Your task to perform on an android device: open a new tab in the chrome app Image 0: 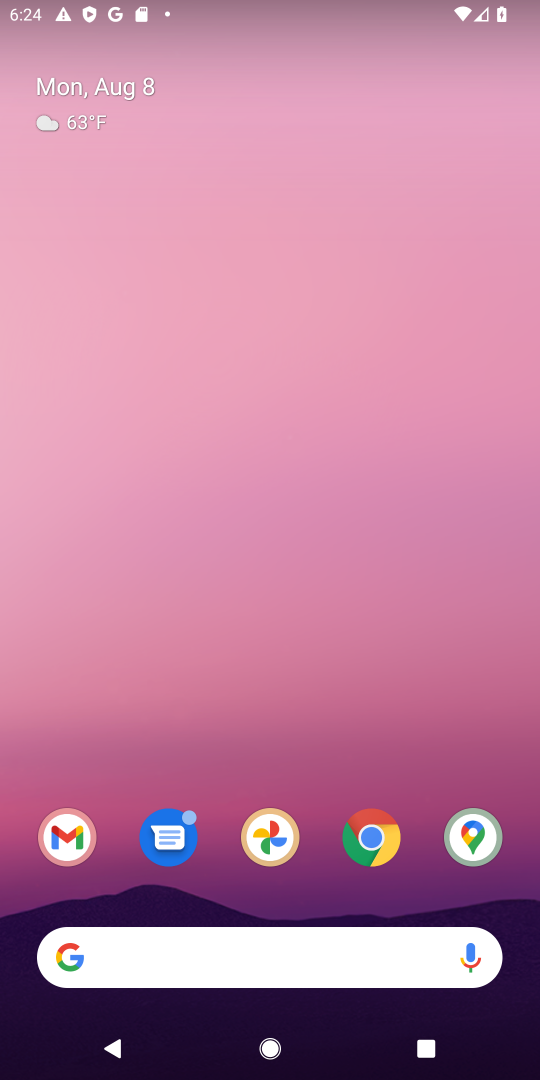
Step 0: drag from (213, 856) to (87, 4)
Your task to perform on an android device: open a new tab in the chrome app Image 1: 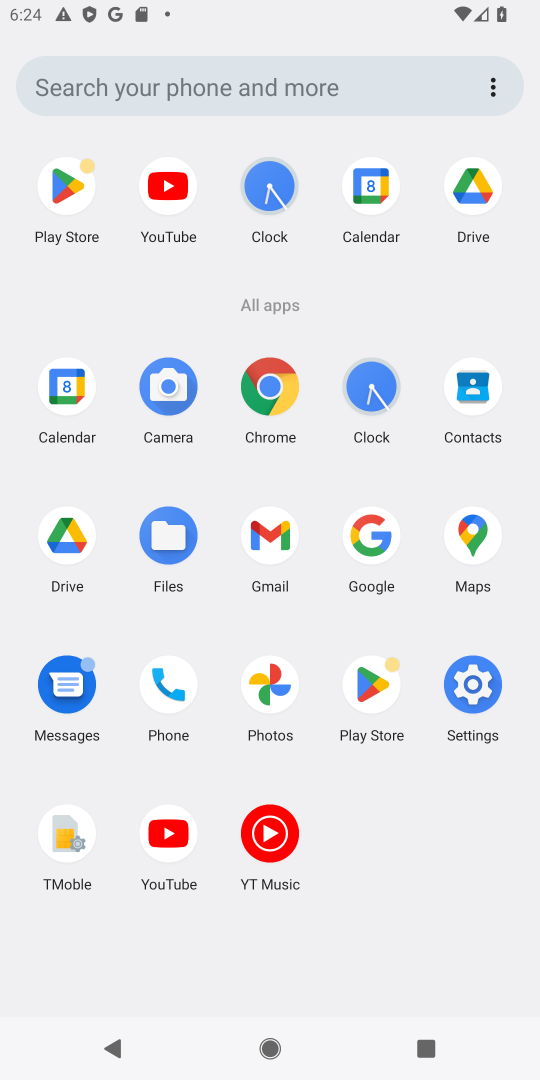
Step 1: click (246, 386)
Your task to perform on an android device: open a new tab in the chrome app Image 2: 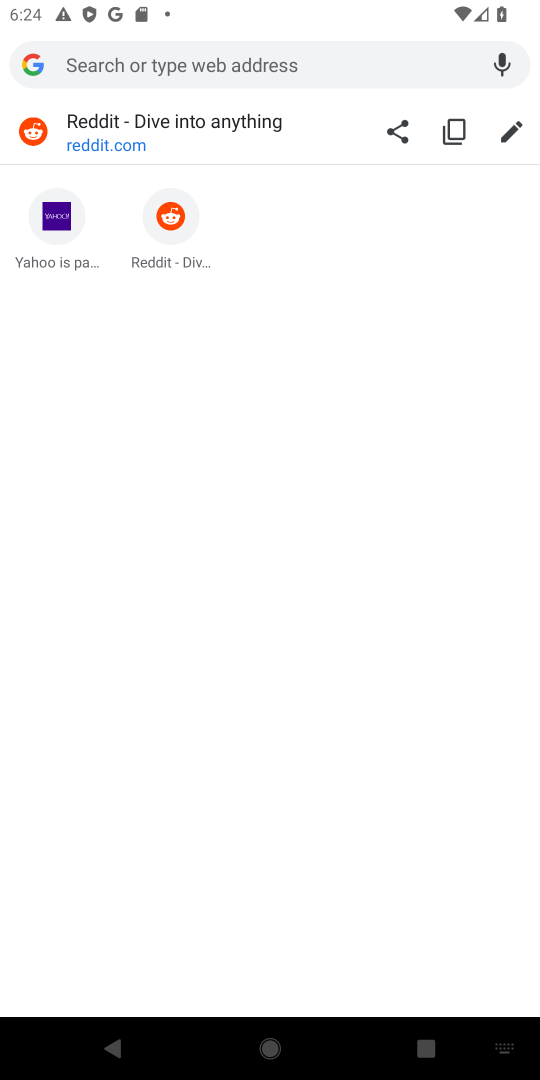
Step 2: task complete